Your task to perform on an android device: Go to accessibility settings Image 0: 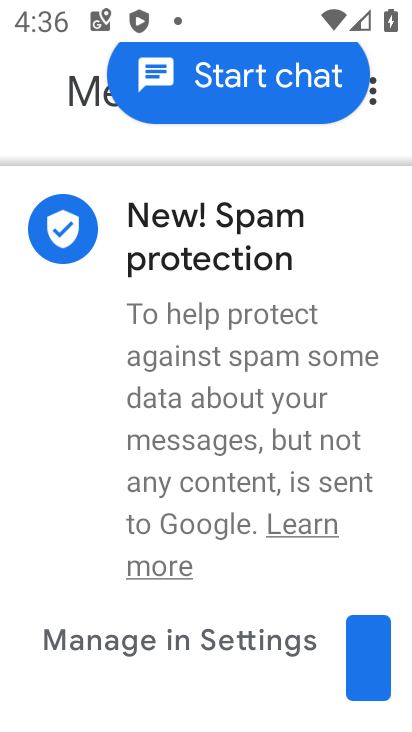
Step 0: press home button
Your task to perform on an android device: Go to accessibility settings Image 1: 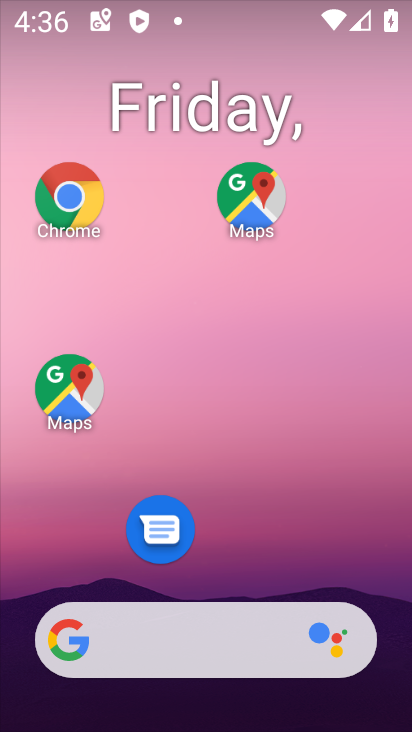
Step 1: drag from (299, 227) to (297, 116)
Your task to perform on an android device: Go to accessibility settings Image 2: 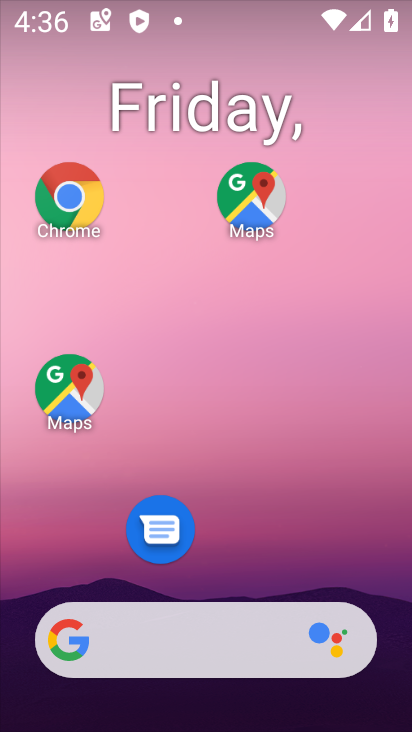
Step 2: drag from (230, 506) to (199, 57)
Your task to perform on an android device: Go to accessibility settings Image 3: 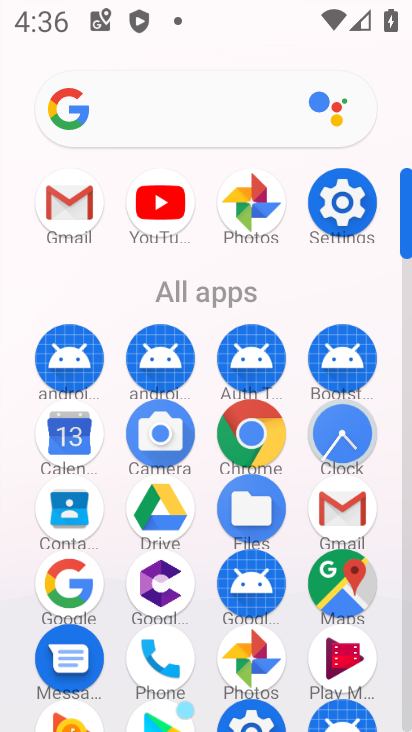
Step 3: click (344, 207)
Your task to perform on an android device: Go to accessibility settings Image 4: 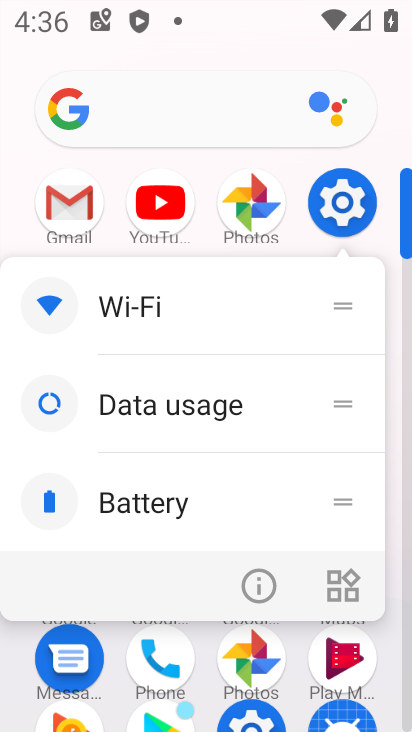
Step 4: click (340, 209)
Your task to perform on an android device: Go to accessibility settings Image 5: 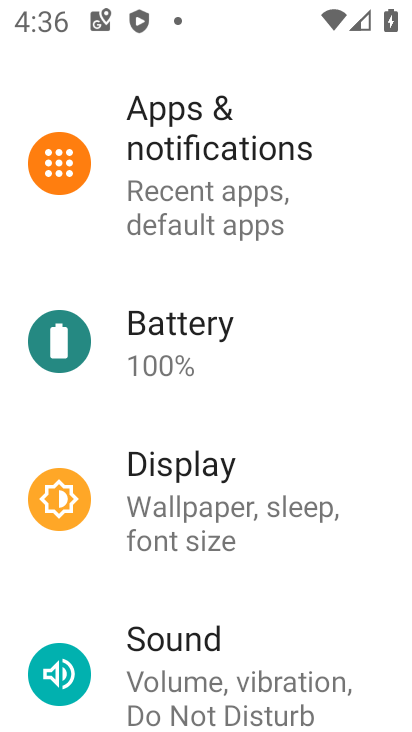
Step 5: drag from (204, 688) to (225, 245)
Your task to perform on an android device: Go to accessibility settings Image 6: 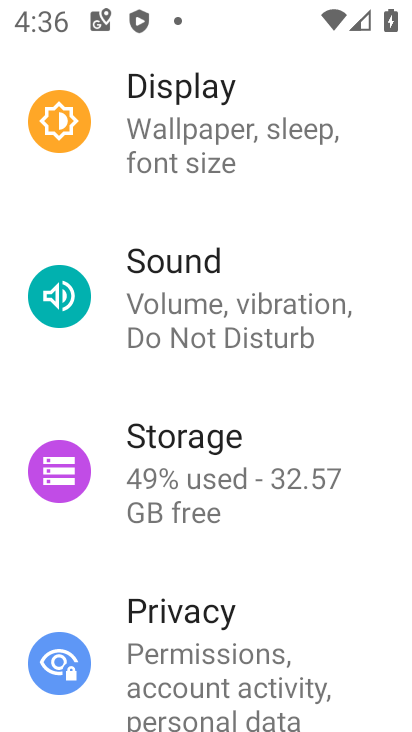
Step 6: drag from (203, 672) to (237, 342)
Your task to perform on an android device: Go to accessibility settings Image 7: 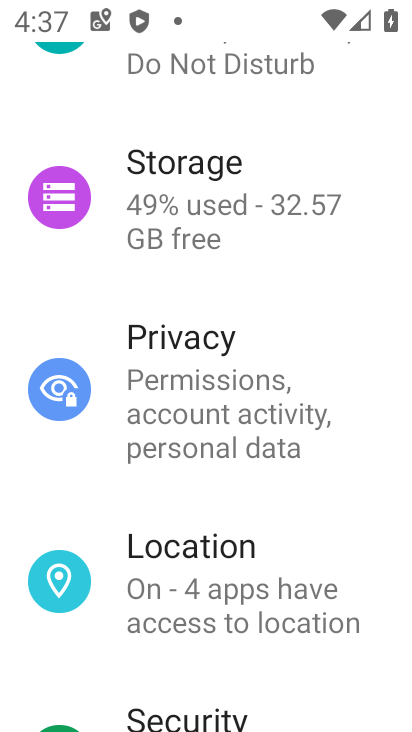
Step 7: drag from (227, 645) to (300, 233)
Your task to perform on an android device: Go to accessibility settings Image 8: 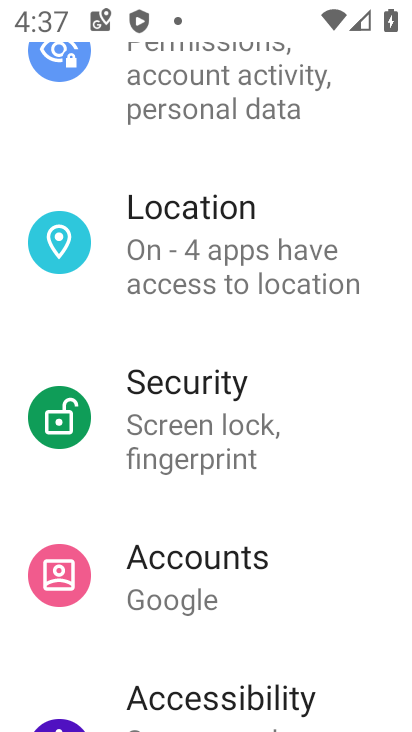
Step 8: click (207, 705)
Your task to perform on an android device: Go to accessibility settings Image 9: 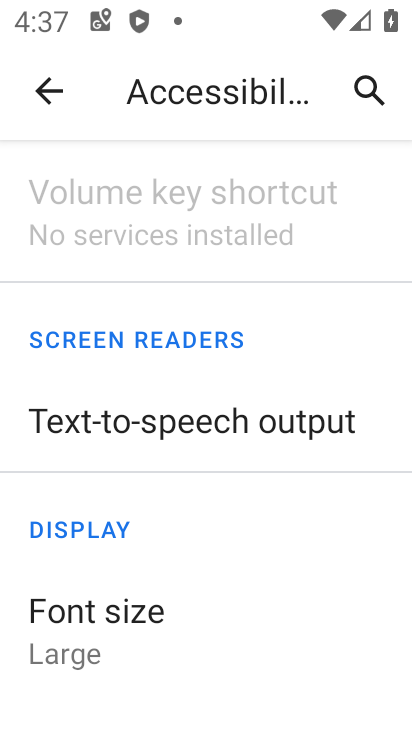
Step 9: task complete